Your task to perform on an android device: Open calendar and show me the fourth week of next month Image 0: 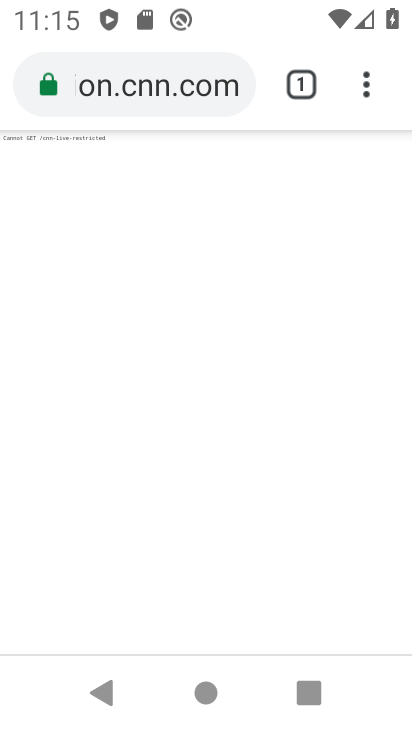
Step 0: press home button
Your task to perform on an android device: Open calendar and show me the fourth week of next month Image 1: 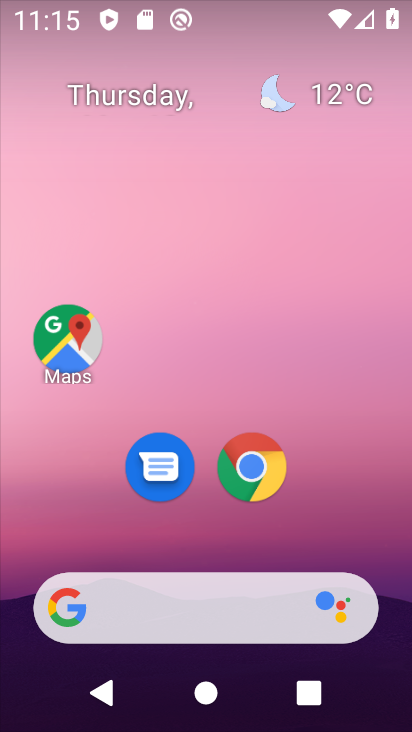
Step 1: drag from (363, 478) to (334, 0)
Your task to perform on an android device: Open calendar and show me the fourth week of next month Image 2: 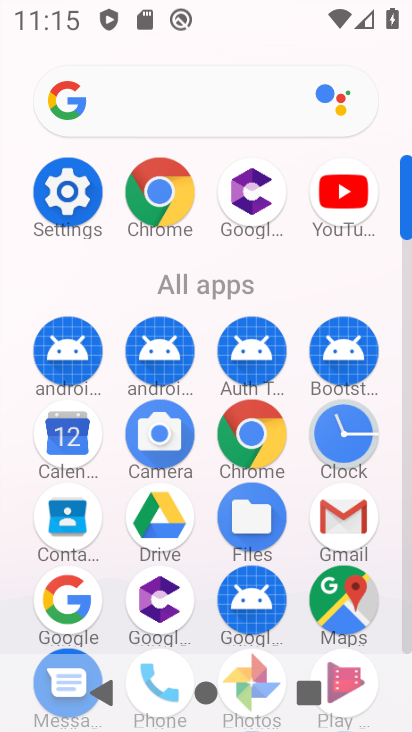
Step 2: click (68, 429)
Your task to perform on an android device: Open calendar and show me the fourth week of next month Image 3: 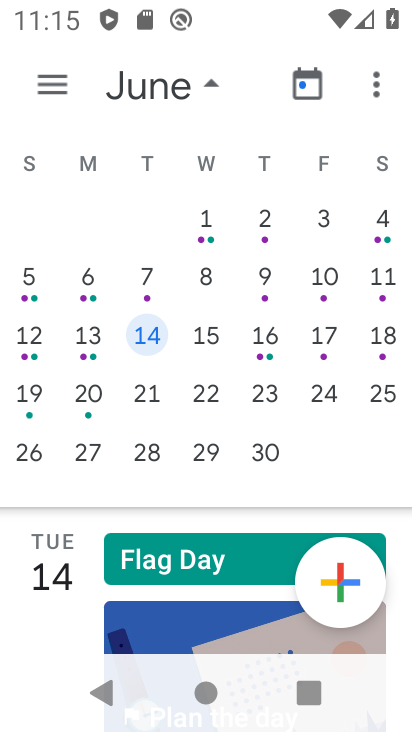
Step 3: drag from (344, 379) to (22, 343)
Your task to perform on an android device: Open calendar and show me the fourth week of next month Image 4: 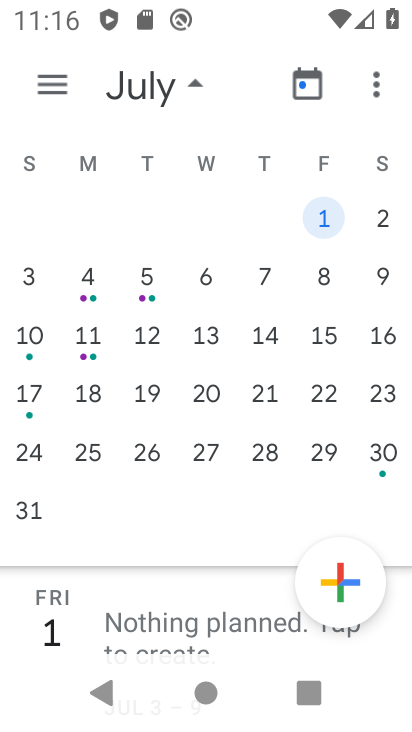
Step 4: click (277, 456)
Your task to perform on an android device: Open calendar and show me the fourth week of next month Image 5: 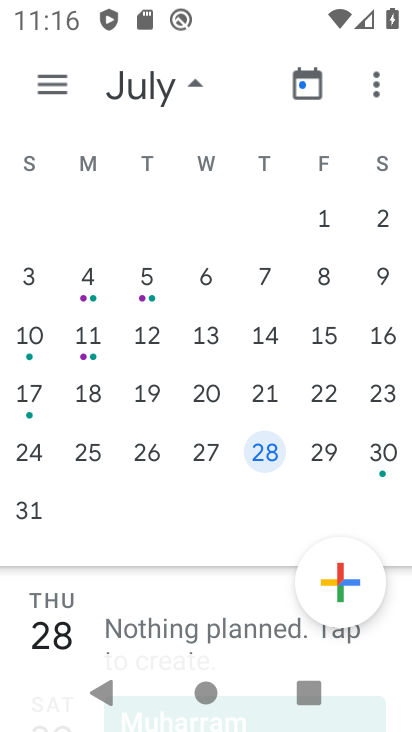
Step 5: task complete